Your task to perform on an android device: toggle wifi Image 0: 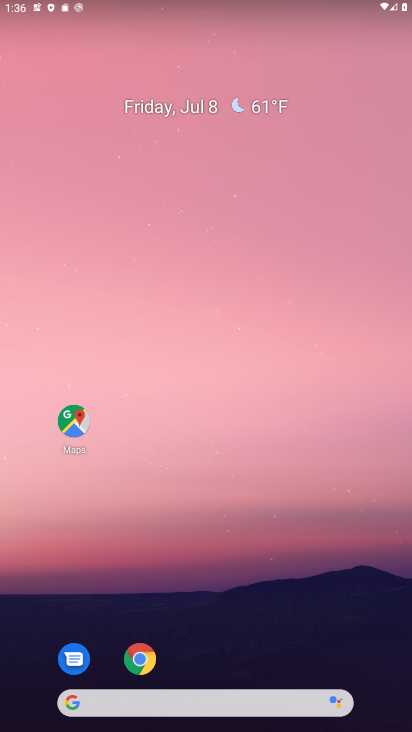
Step 0: drag from (164, 549) to (141, 10)
Your task to perform on an android device: toggle wifi Image 1: 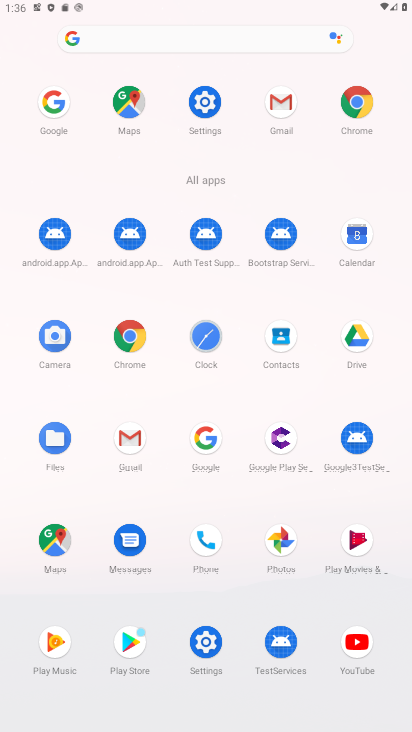
Step 1: click (209, 101)
Your task to perform on an android device: toggle wifi Image 2: 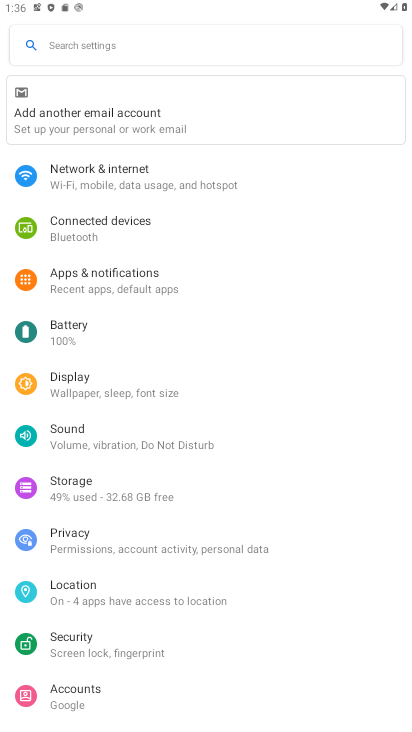
Step 2: click (189, 190)
Your task to perform on an android device: toggle wifi Image 3: 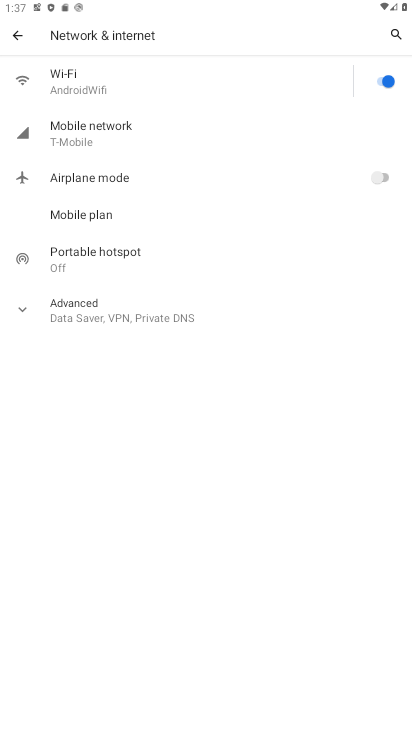
Step 3: click (90, 80)
Your task to perform on an android device: toggle wifi Image 4: 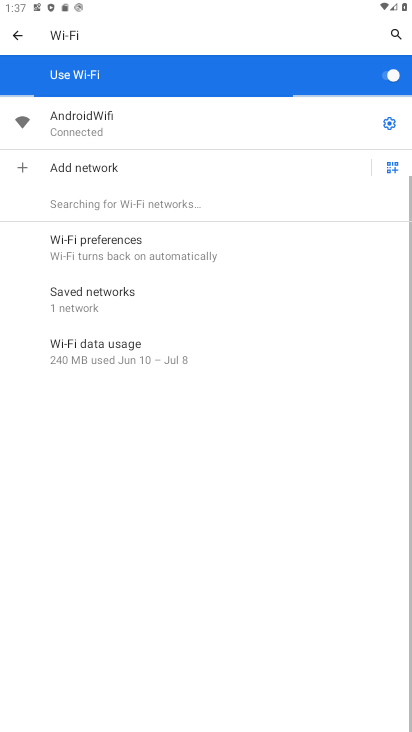
Step 4: click (375, 86)
Your task to perform on an android device: toggle wifi Image 5: 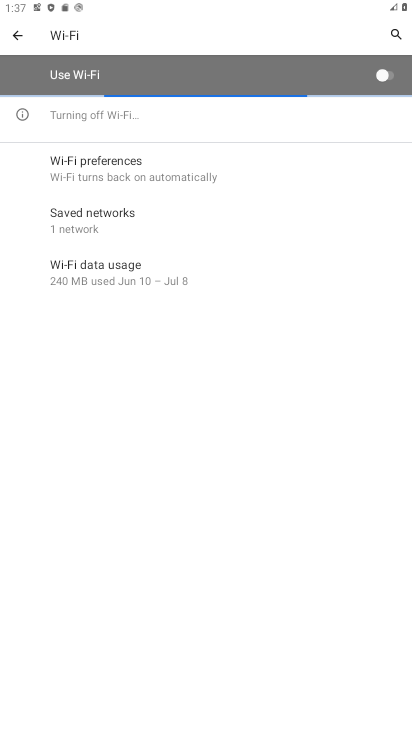
Step 5: task complete